Your task to perform on an android device: Search for sushi restaurants on Maps Image 0: 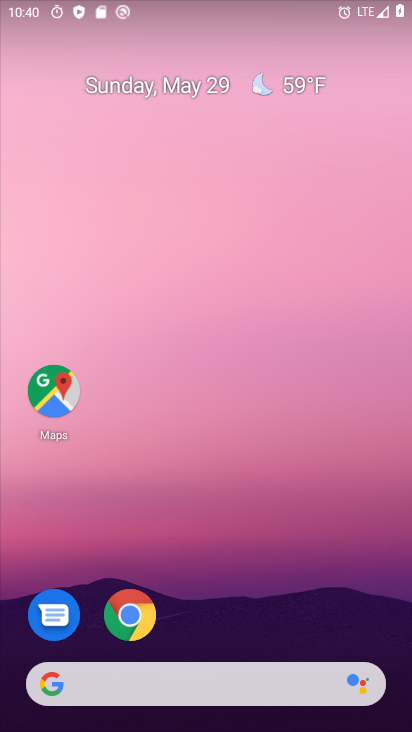
Step 0: click (57, 401)
Your task to perform on an android device: Search for sushi restaurants on Maps Image 1: 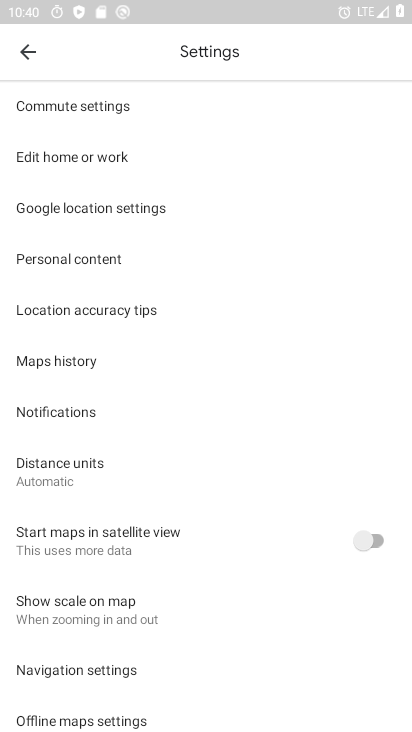
Step 1: press back button
Your task to perform on an android device: Search for sushi restaurants on Maps Image 2: 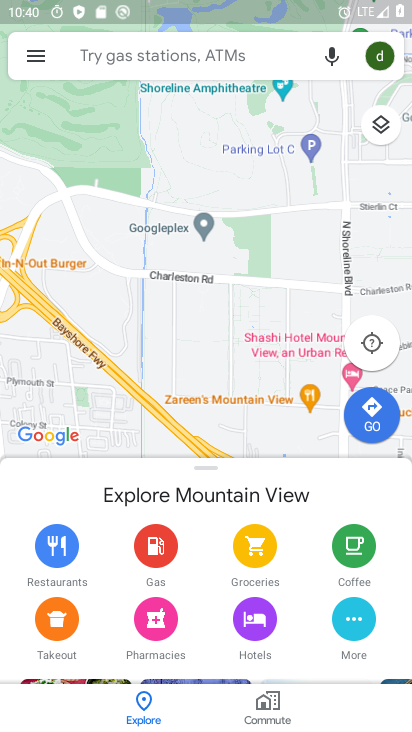
Step 2: click (142, 58)
Your task to perform on an android device: Search for sushi restaurants on Maps Image 3: 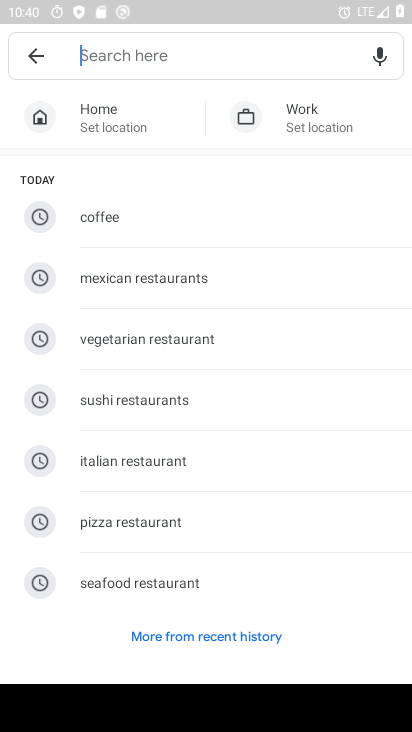
Step 3: click (140, 397)
Your task to perform on an android device: Search for sushi restaurants on Maps Image 4: 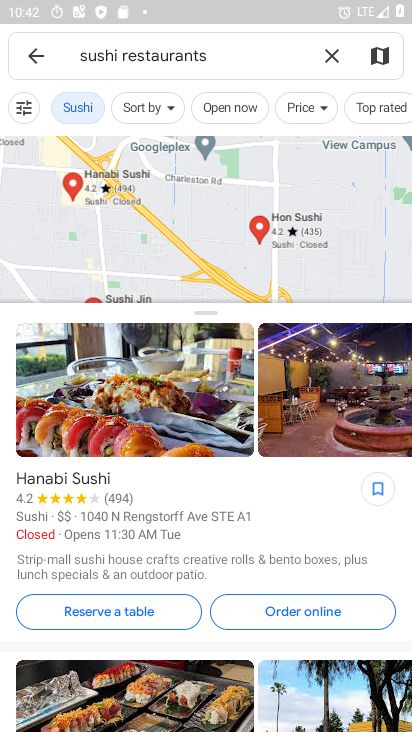
Step 4: task complete